Your task to perform on an android device: Open Maps and search for coffee Image 0: 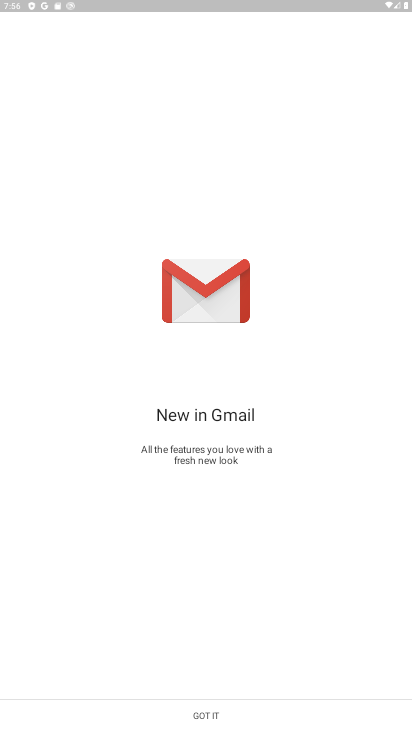
Step 0: press home button
Your task to perform on an android device: Open Maps and search for coffee Image 1: 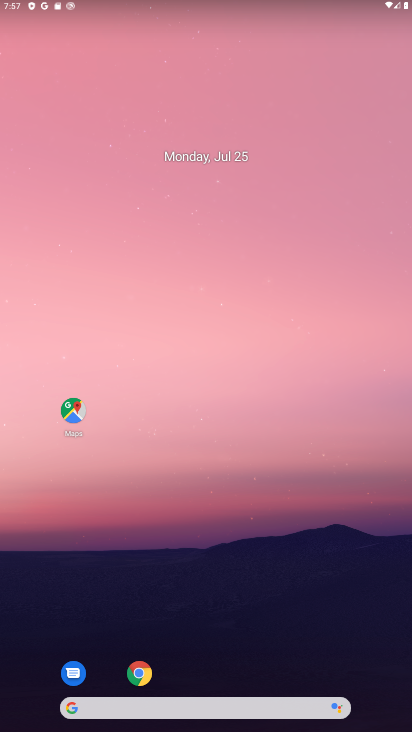
Step 1: click (76, 419)
Your task to perform on an android device: Open Maps and search for coffee Image 2: 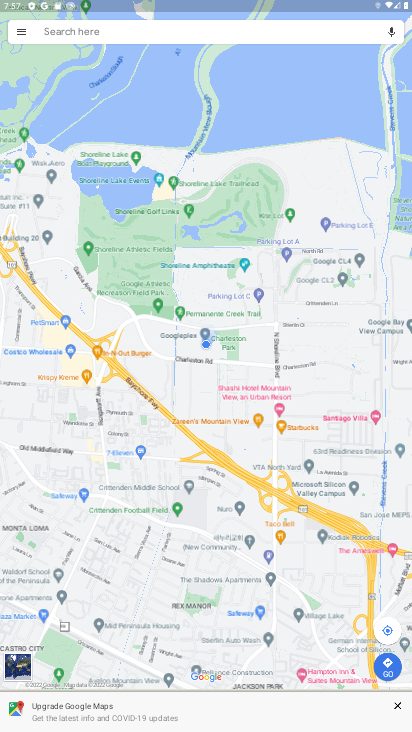
Step 2: task complete